Your task to perform on an android device: Turn off the flashlight Image 0: 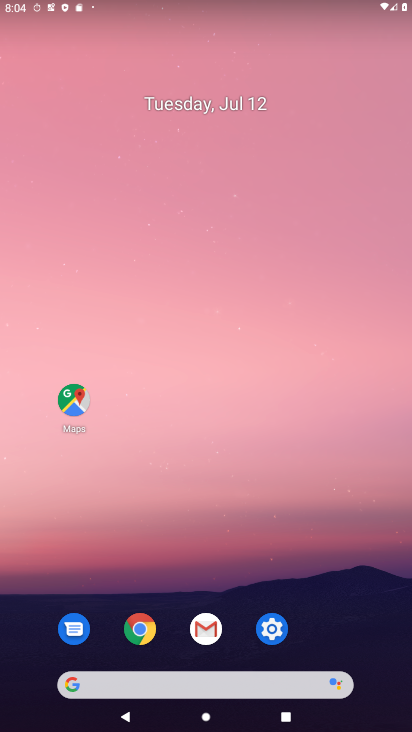
Step 0: press home button
Your task to perform on an android device: Turn off the flashlight Image 1: 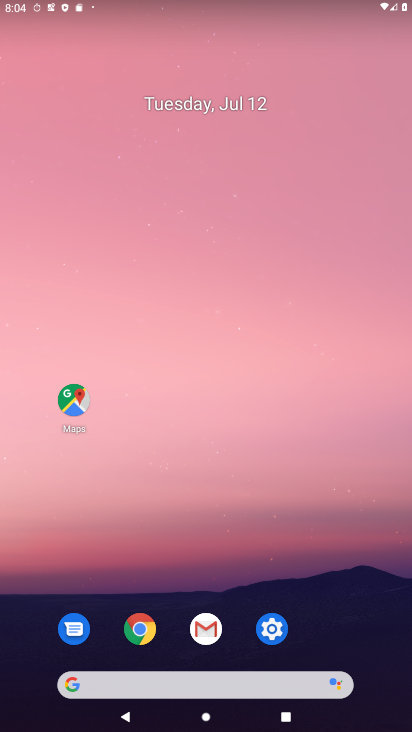
Step 1: click (284, 624)
Your task to perform on an android device: Turn off the flashlight Image 2: 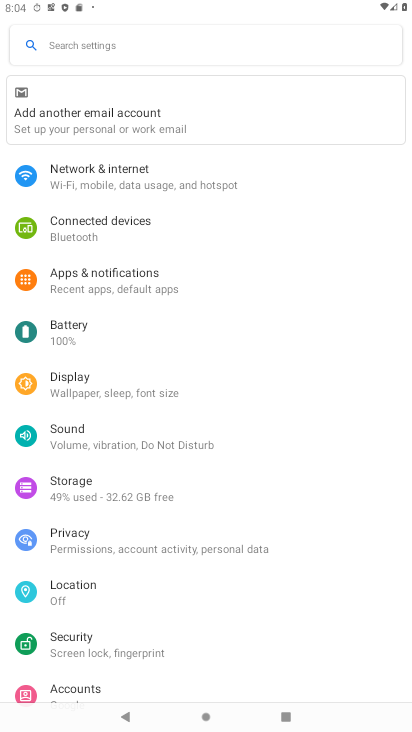
Step 2: click (84, 41)
Your task to perform on an android device: Turn off the flashlight Image 3: 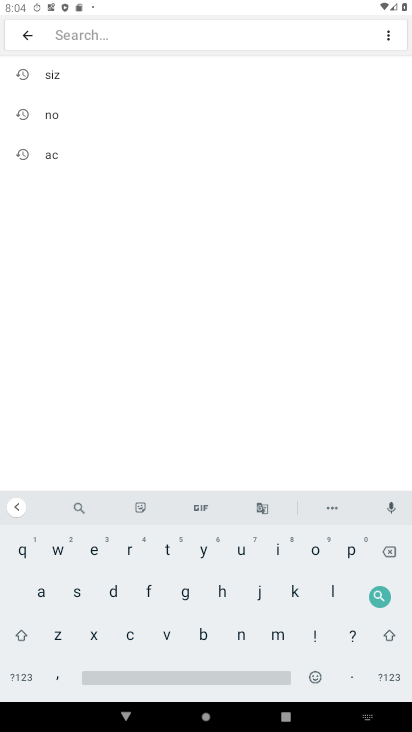
Step 3: click (151, 591)
Your task to perform on an android device: Turn off the flashlight Image 4: 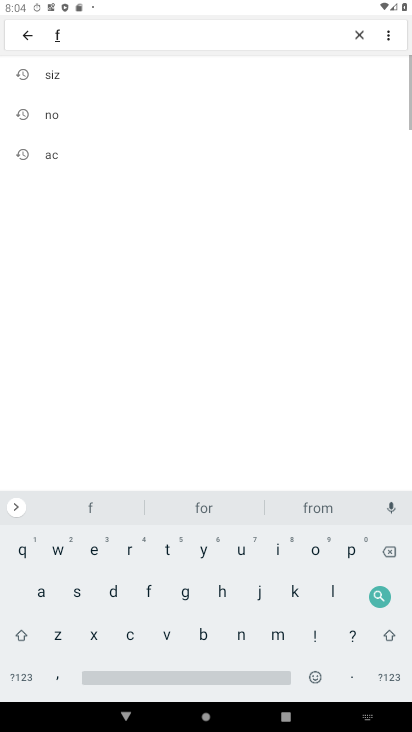
Step 4: click (329, 593)
Your task to perform on an android device: Turn off the flashlight Image 5: 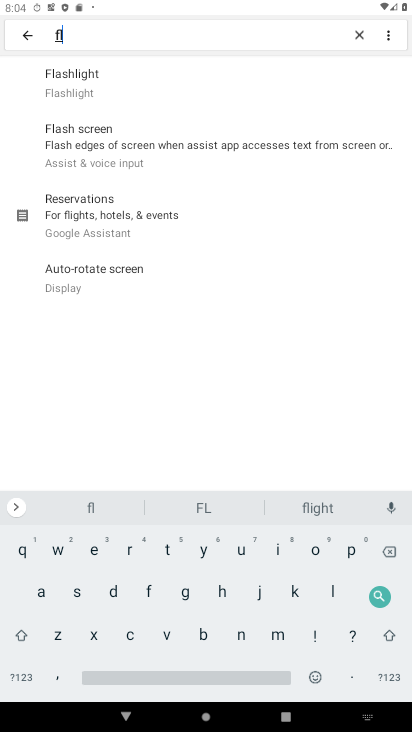
Step 5: click (92, 81)
Your task to perform on an android device: Turn off the flashlight Image 6: 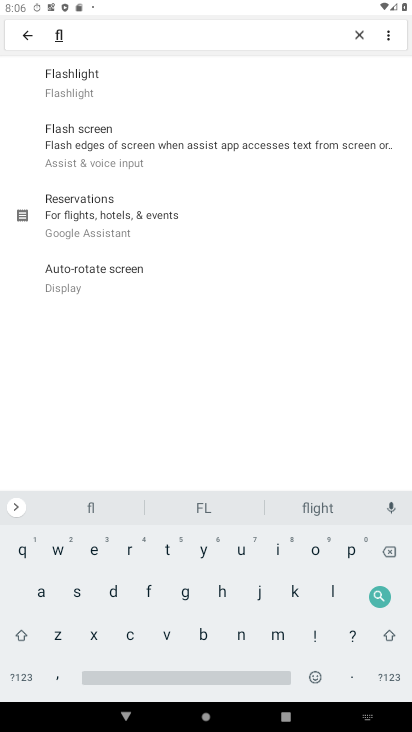
Step 6: task complete